Your task to perform on an android device: Do I have any events this weekend? Image 0: 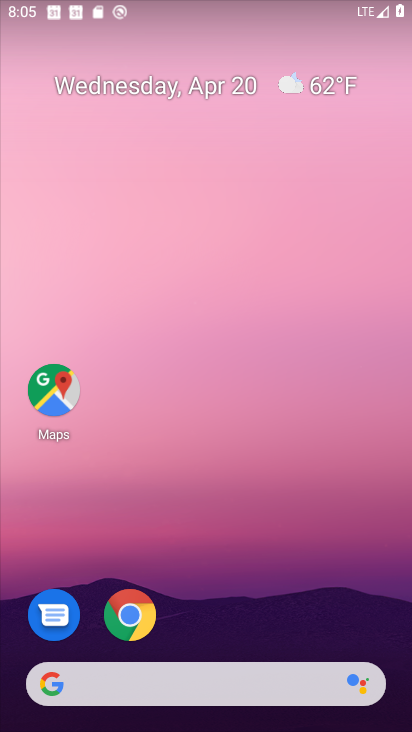
Step 0: drag from (190, 577) to (299, 64)
Your task to perform on an android device: Do I have any events this weekend? Image 1: 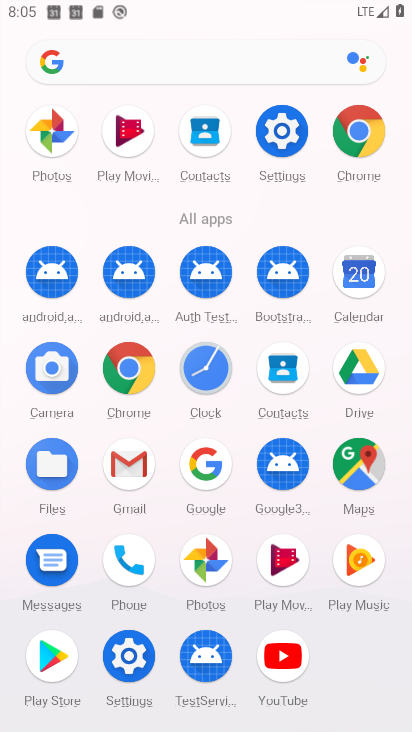
Step 1: click (362, 278)
Your task to perform on an android device: Do I have any events this weekend? Image 2: 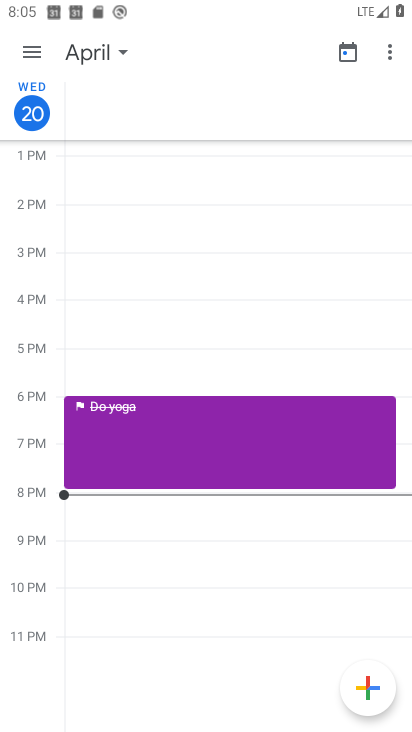
Step 2: click (29, 50)
Your task to perform on an android device: Do I have any events this weekend? Image 3: 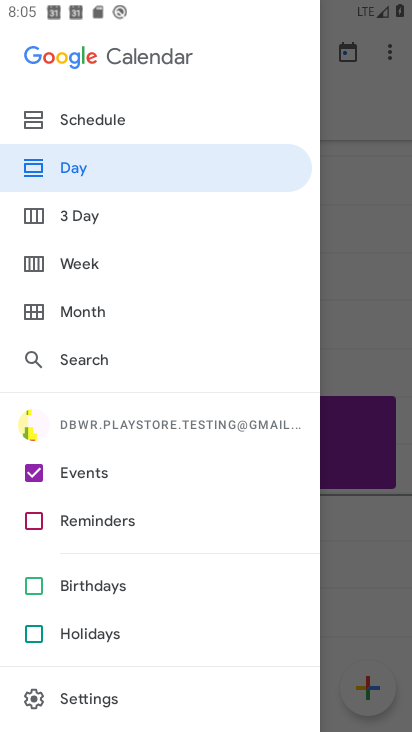
Step 3: click (74, 259)
Your task to perform on an android device: Do I have any events this weekend? Image 4: 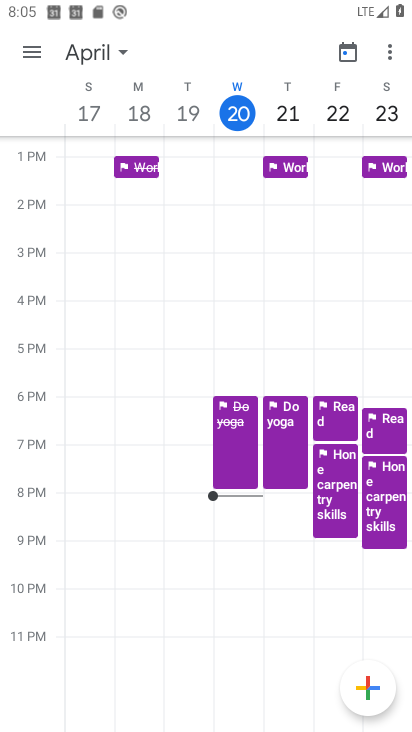
Step 4: task complete